Your task to perform on an android device: Open notification settings Image 0: 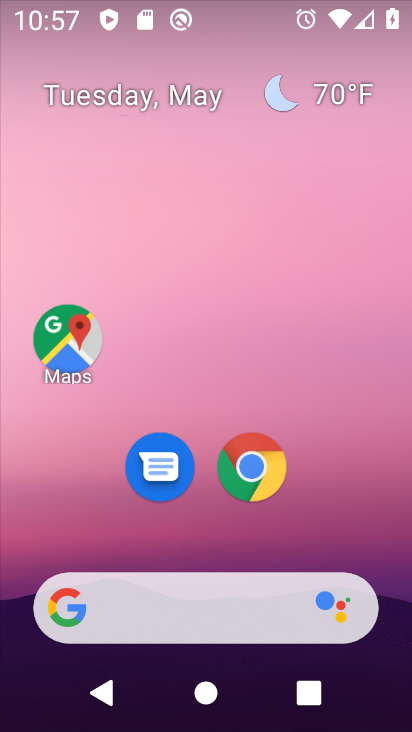
Step 0: drag from (76, 556) to (229, 19)
Your task to perform on an android device: Open notification settings Image 1: 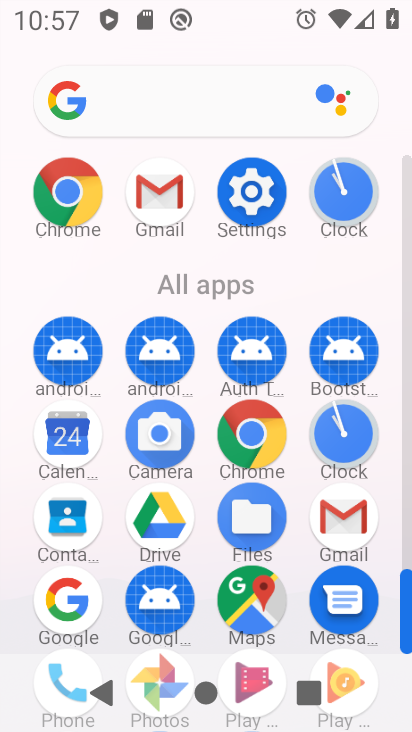
Step 1: drag from (144, 635) to (276, 306)
Your task to perform on an android device: Open notification settings Image 2: 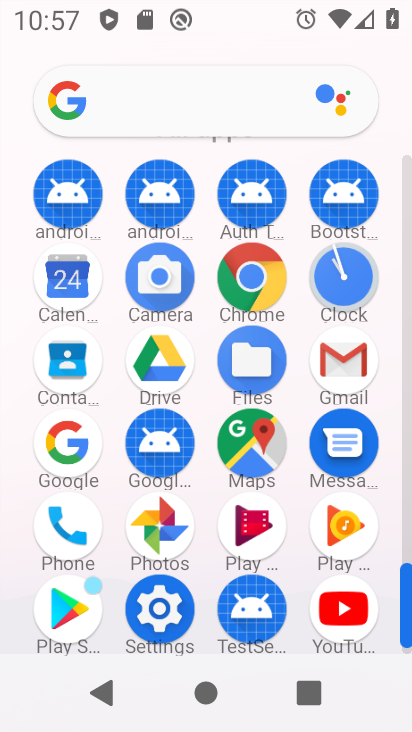
Step 2: click (151, 617)
Your task to perform on an android device: Open notification settings Image 3: 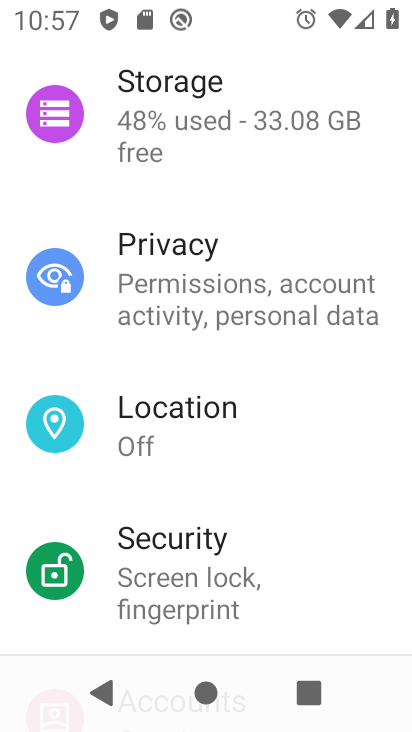
Step 3: drag from (243, 210) to (188, 638)
Your task to perform on an android device: Open notification settings Image 4: 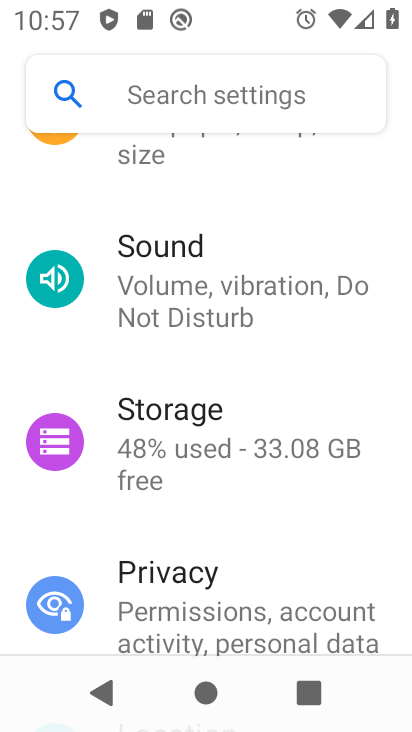
Step 4: drag from (276, 207) to (229, 617)
Your task to perform on an android device: Open notification settings Image 5: 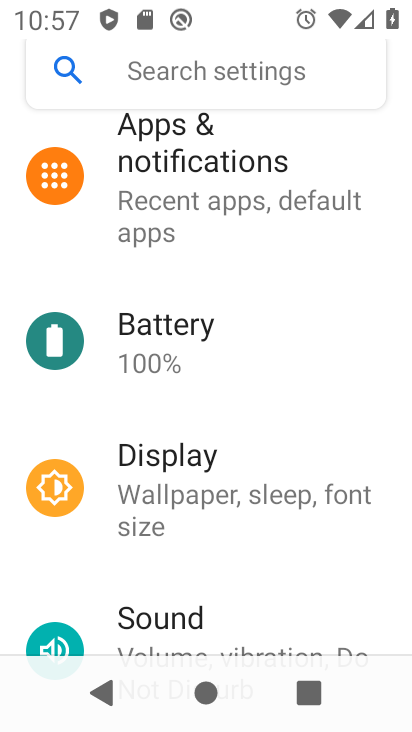
Step 5: drag from (239, 226) to (235, 531)
Your task to perform on an android device: Open notification settings Image 6: 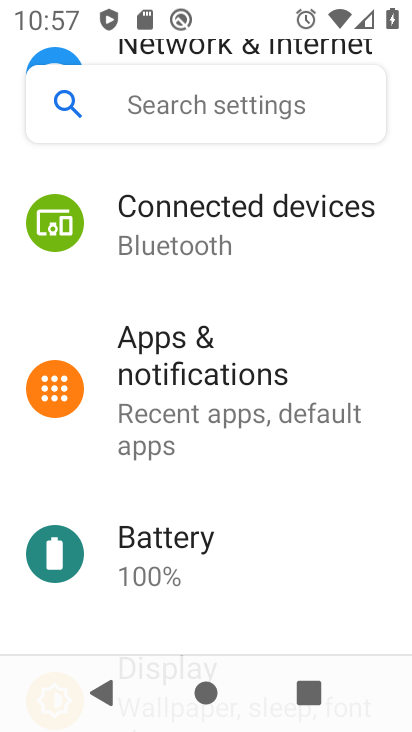
Step 6: click (216, 367)
Your task to perform on an android device: Open notification settings Image 7: 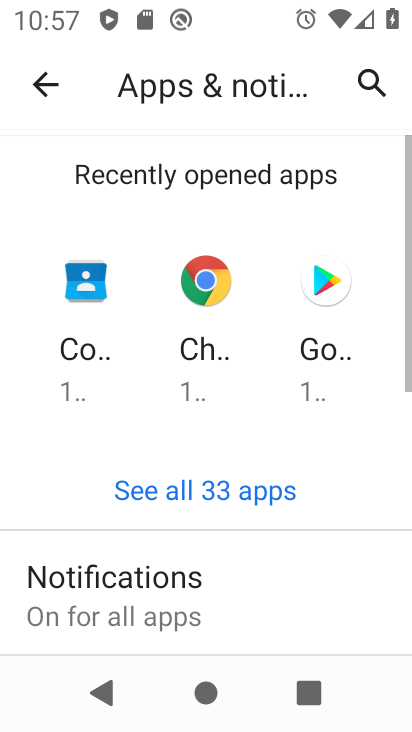
Step 7: click (198, 591)
Your task to perform on an android device: Open notification settings Image 8: 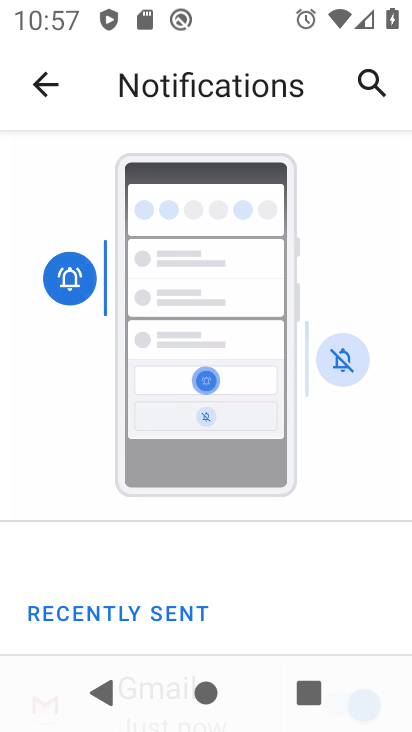
Step 8: task complete